Your task to perform on an android device: find snoozed emails in the gmail app Image 0: 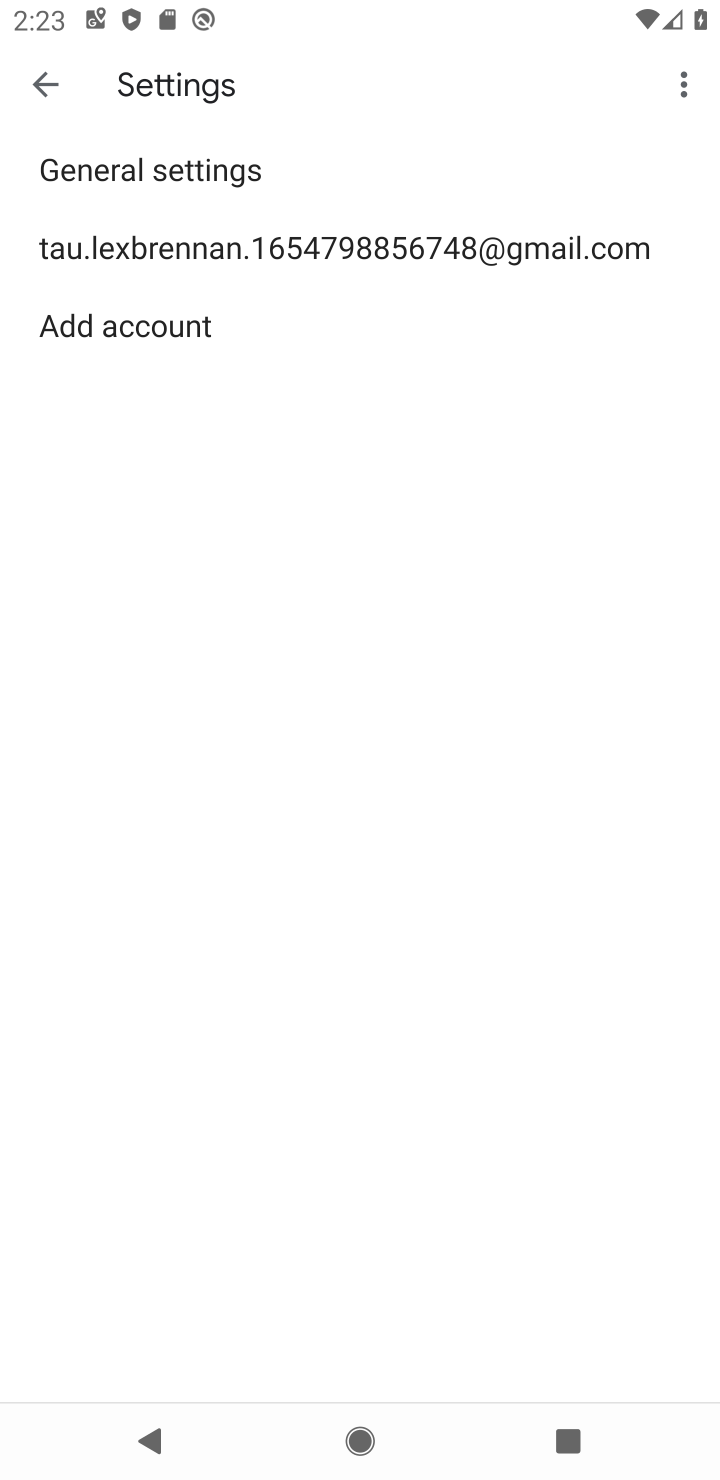
Step 0: press home button
Your task to perform on an android device: find snoozed emails in the gmail app Image 1: 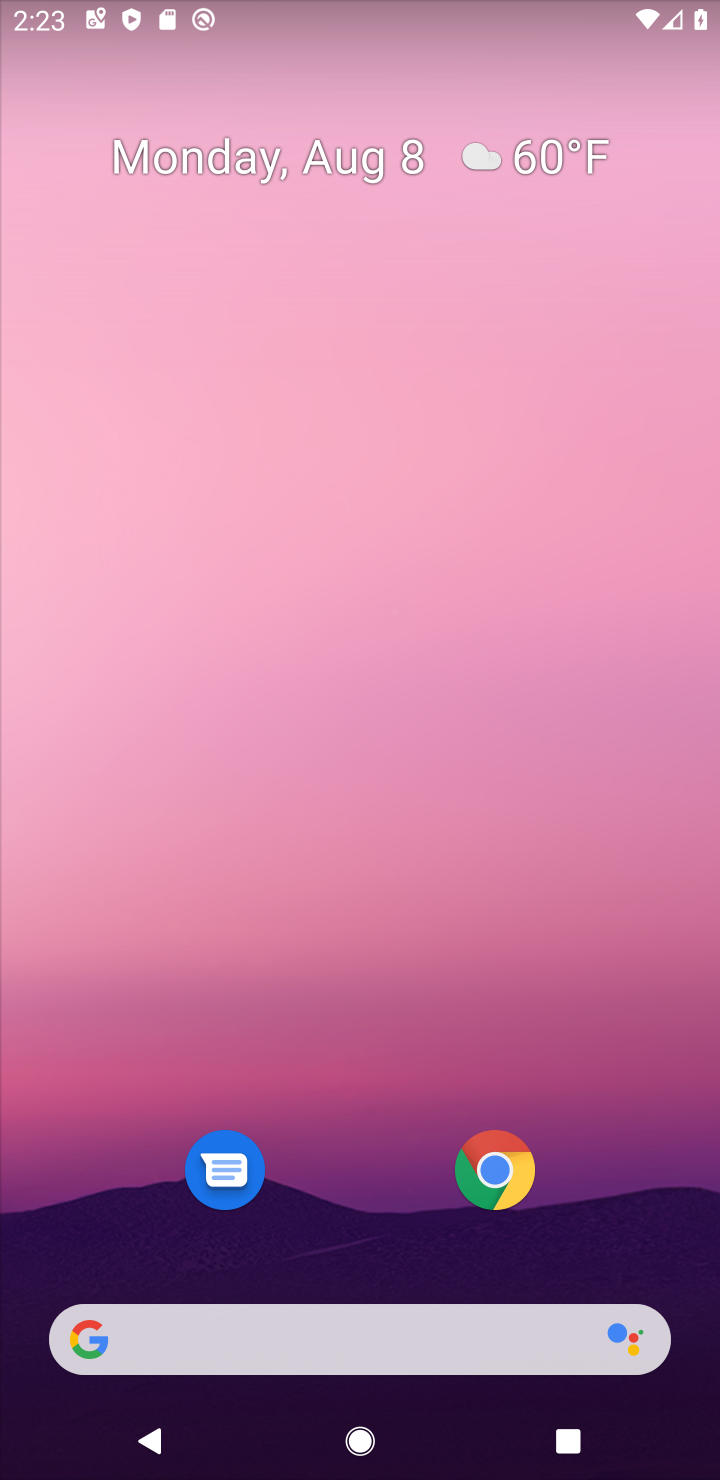
Step 1: drag from (398, 786) to (398, 413)
Your task to perform on an android device: find snoozed emails in the gmail app Image 2: 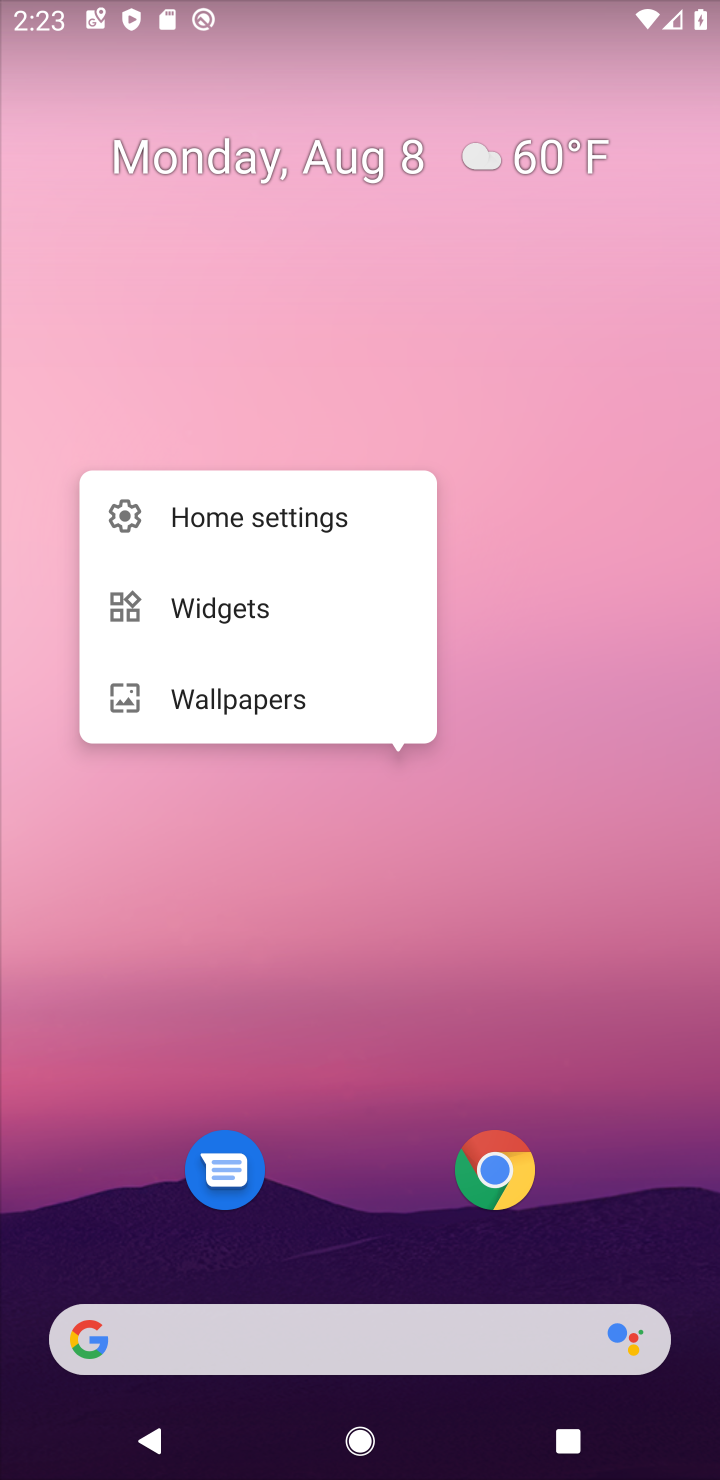
Step 2: click (398, 1063)
Your task to perform on an android device: find snoozed emails in the gmail app Image 3: 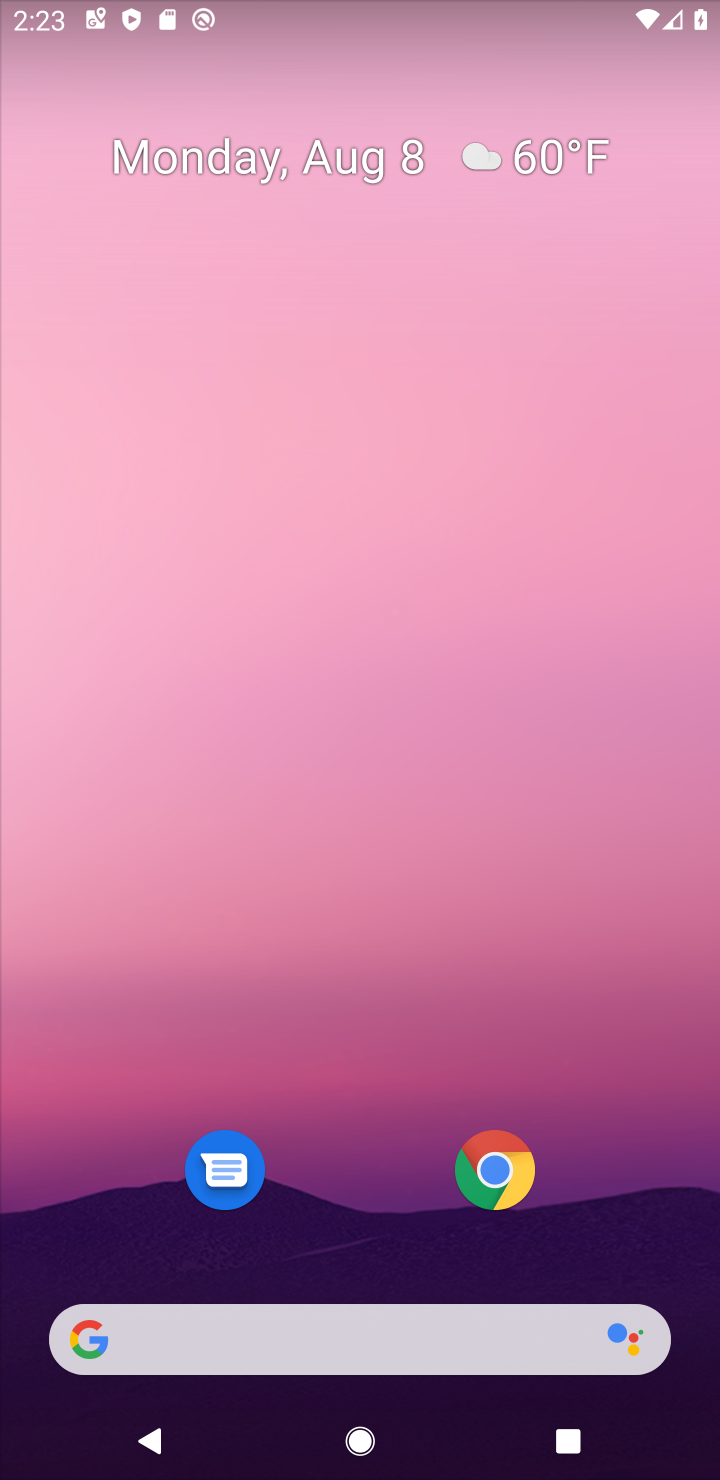
Step 3: drag from (356, 1212) to (359, 374)
Your task to perform on an android device: find snoozed emails in the gmail app Image 4: 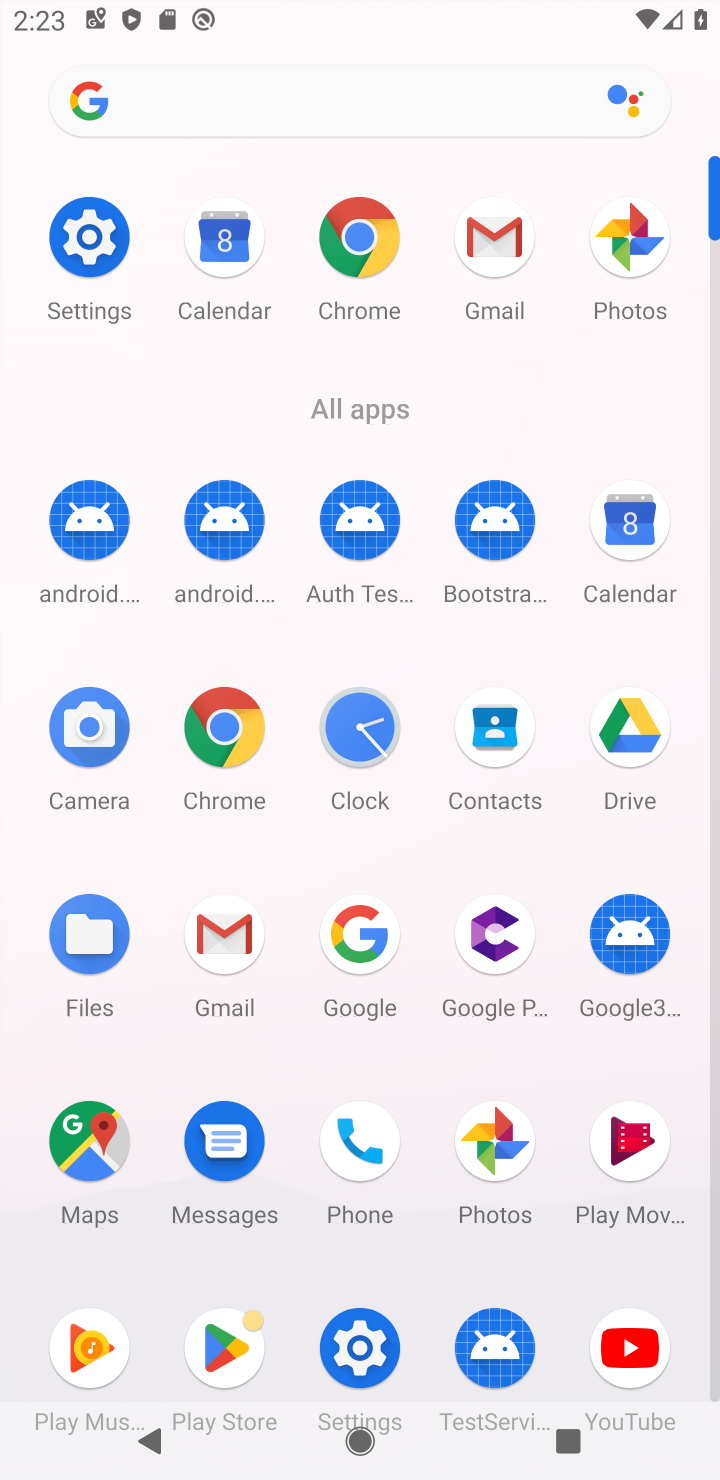
Step 4: click (231, 963)
Your task to perform on an android device: find snoozed emails in the gmail app Image 5: 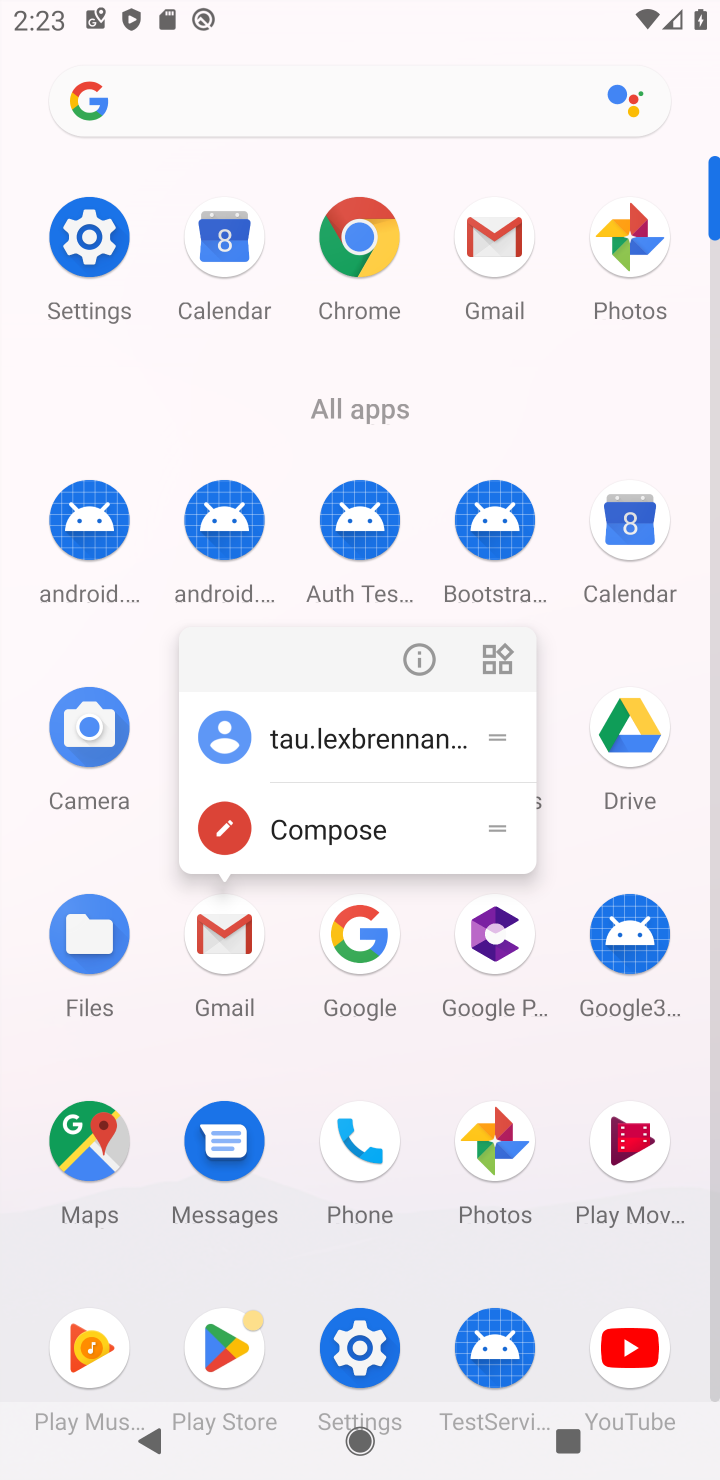
Step 5: click (231, 963)
Your task to perform on an android device: find snoozed emails in the gmail app Image 6: 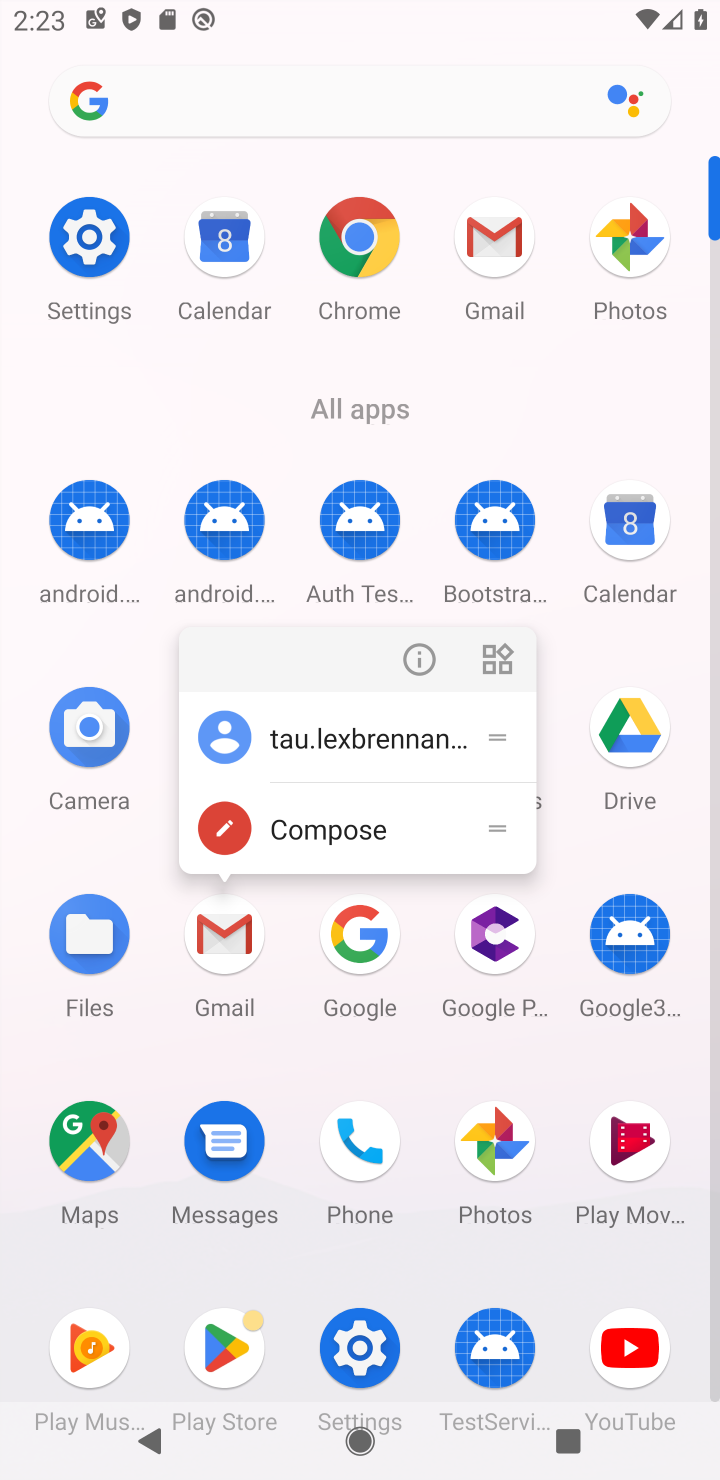
Step 6: click (231, 963)
Your task to perform on an android device: find snoozed emails in the gmail app Image 7: 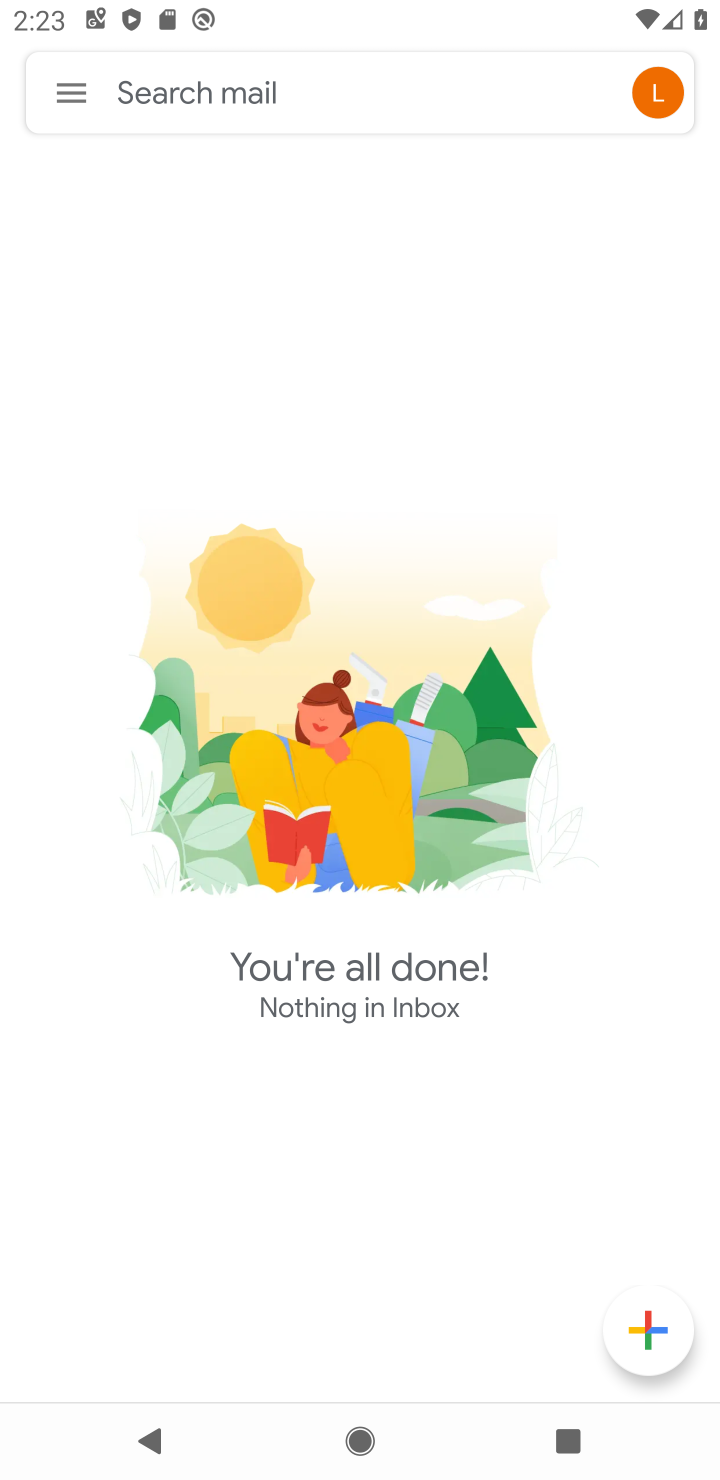
Step 7: click (78, 97)
Your task to perform on an android device: find snoozed emails in the gmail app Image 8: 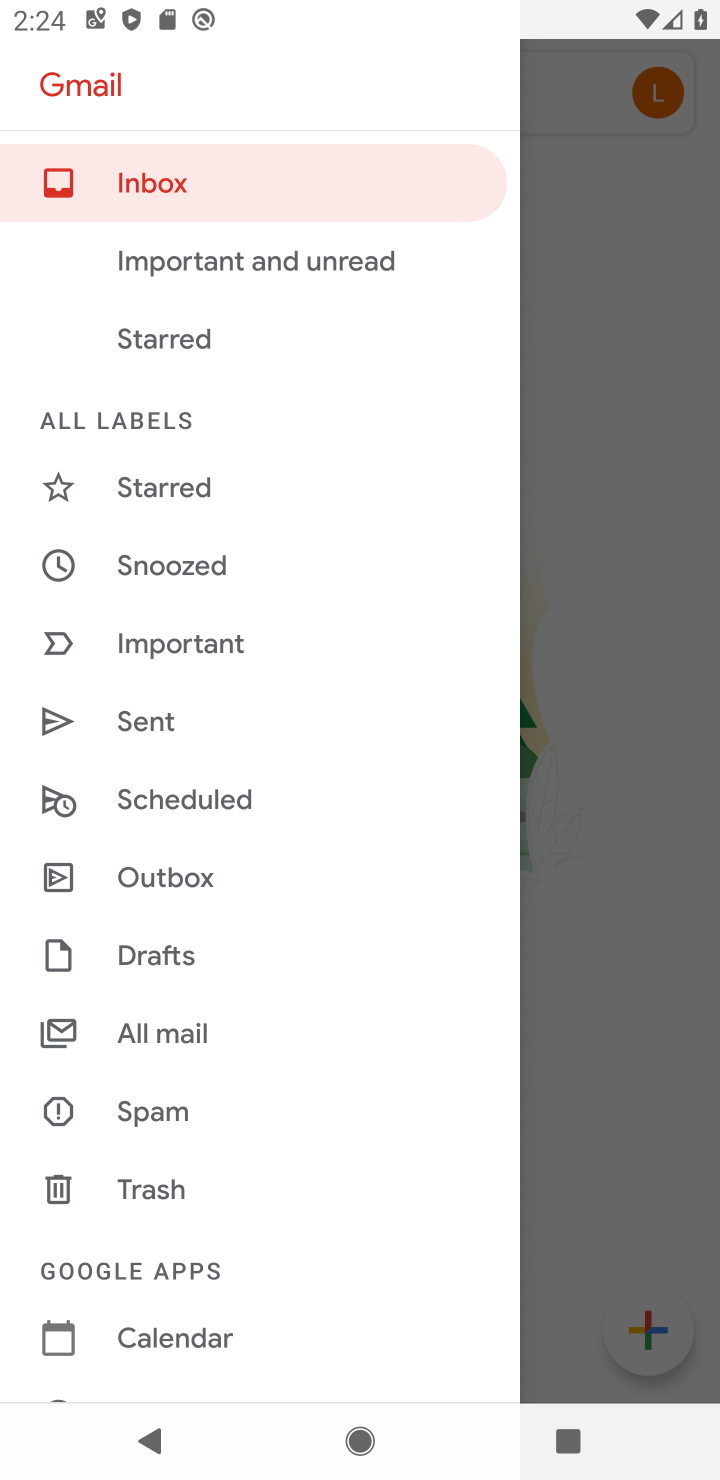
Step 8: click (184, 1028)
Your task to perform on an android device: find snoozed emails in the gmail app Image 9: 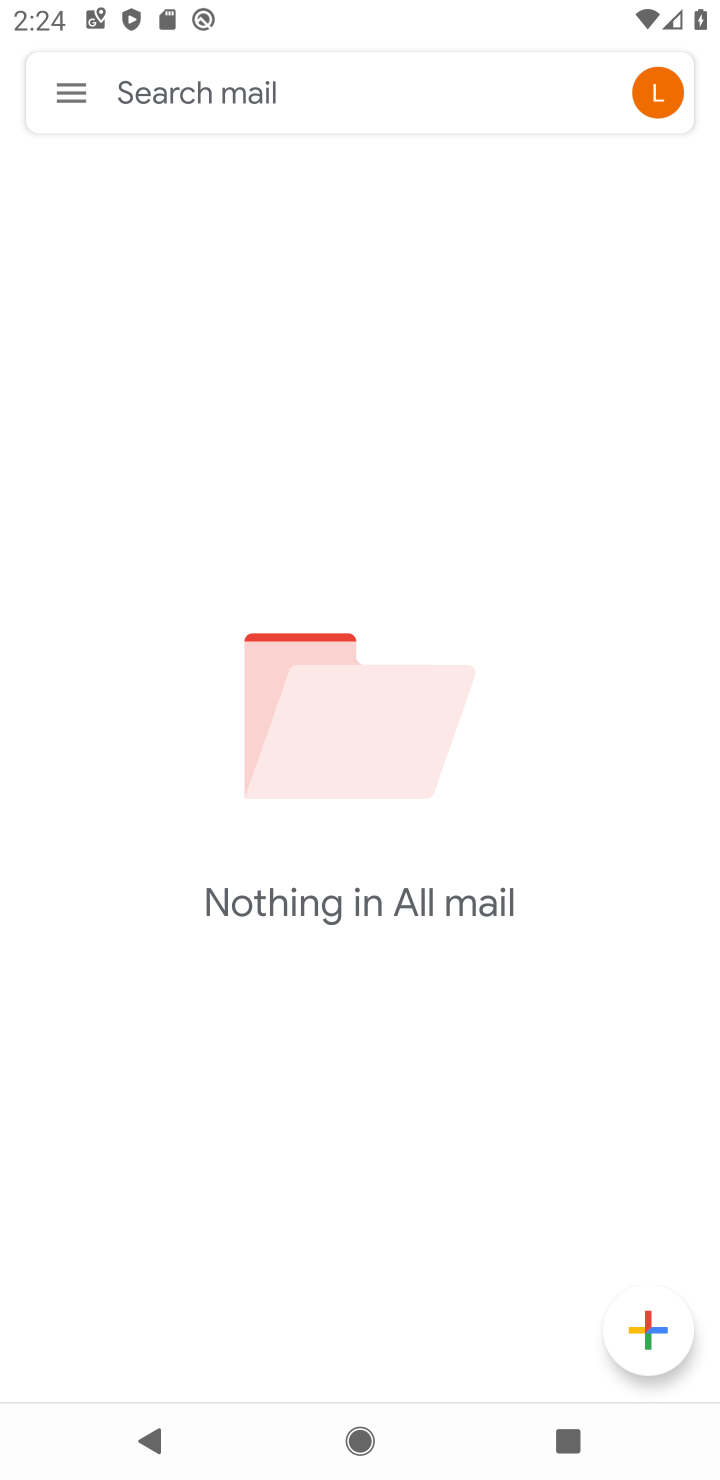
Step 9: task complete